Your task to perform on an android device: change the clock display to show seconds Image 0: 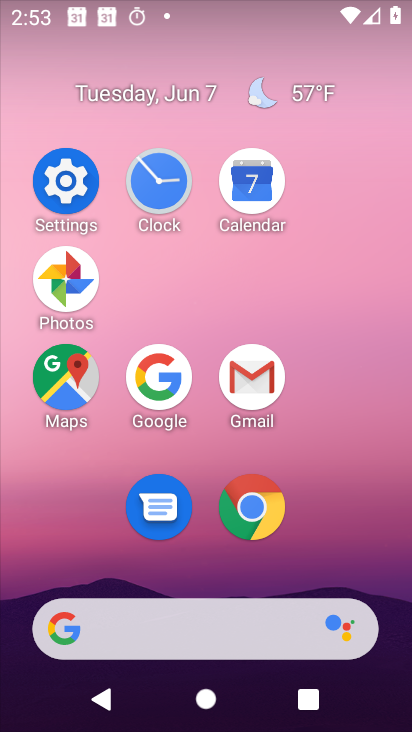
Step 0: click (153, 199)
Your task to perform on an android device: change the clock display to show seconds Image 1: 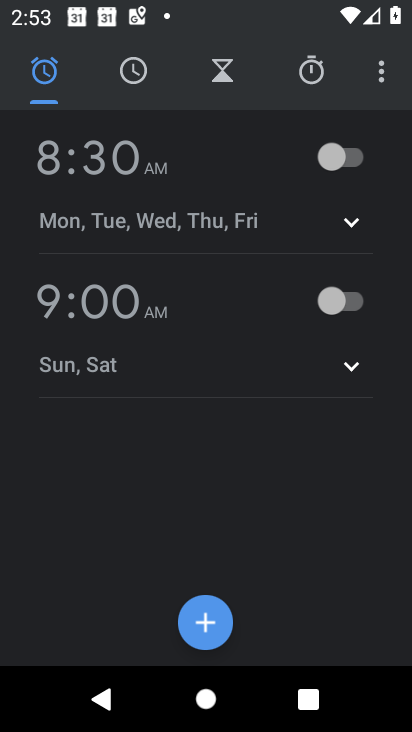
Step 1: click (400, 70)
Your task to perform on an android device: change the clock display to show seconds Image 2: 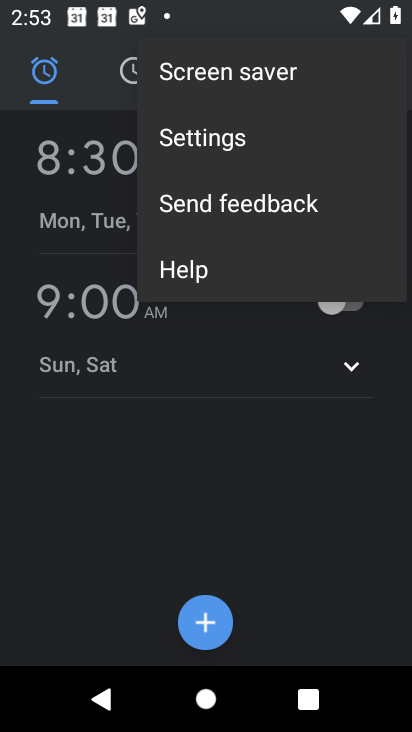
Step 2: click (315, 133)
Your task to perform on an android device: change the clock display to show seconds Image 3: 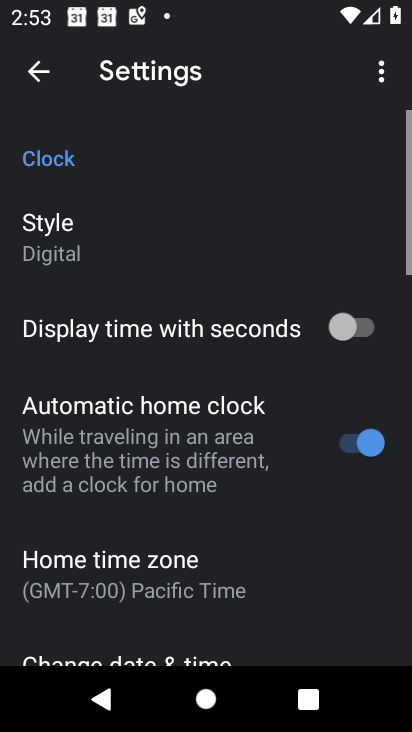
Step 3: click (317, 327)
Your task to perform on an android device: change the clock display to show seconds Image 4: 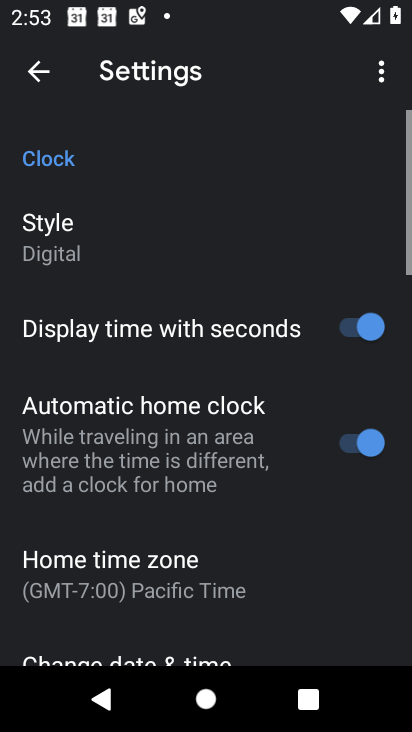
Step 4: task complete